Your task to perform on an android device: turn on location history Image 0: 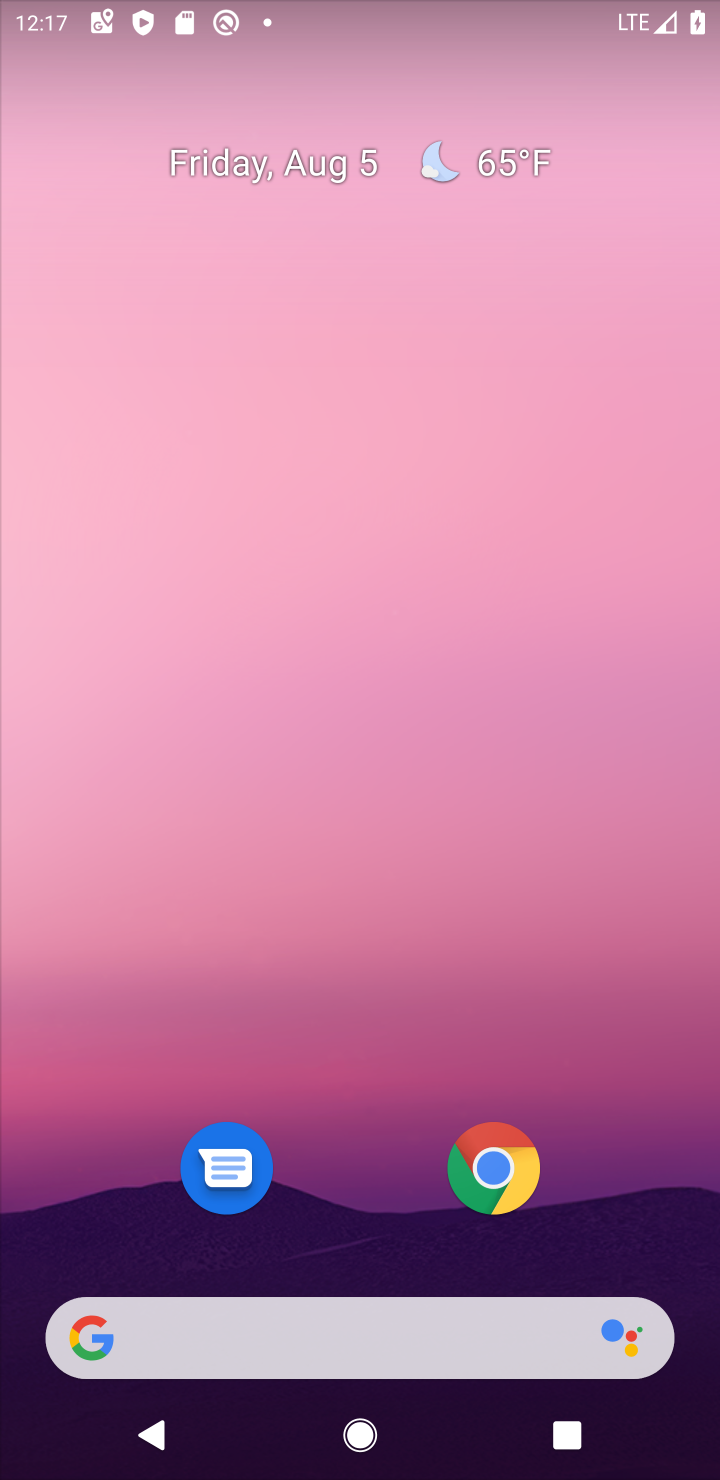
Step 0: drag from (660, 1189) to (348, 112)
Your task to perform on an android device: turn on location history Image 1: 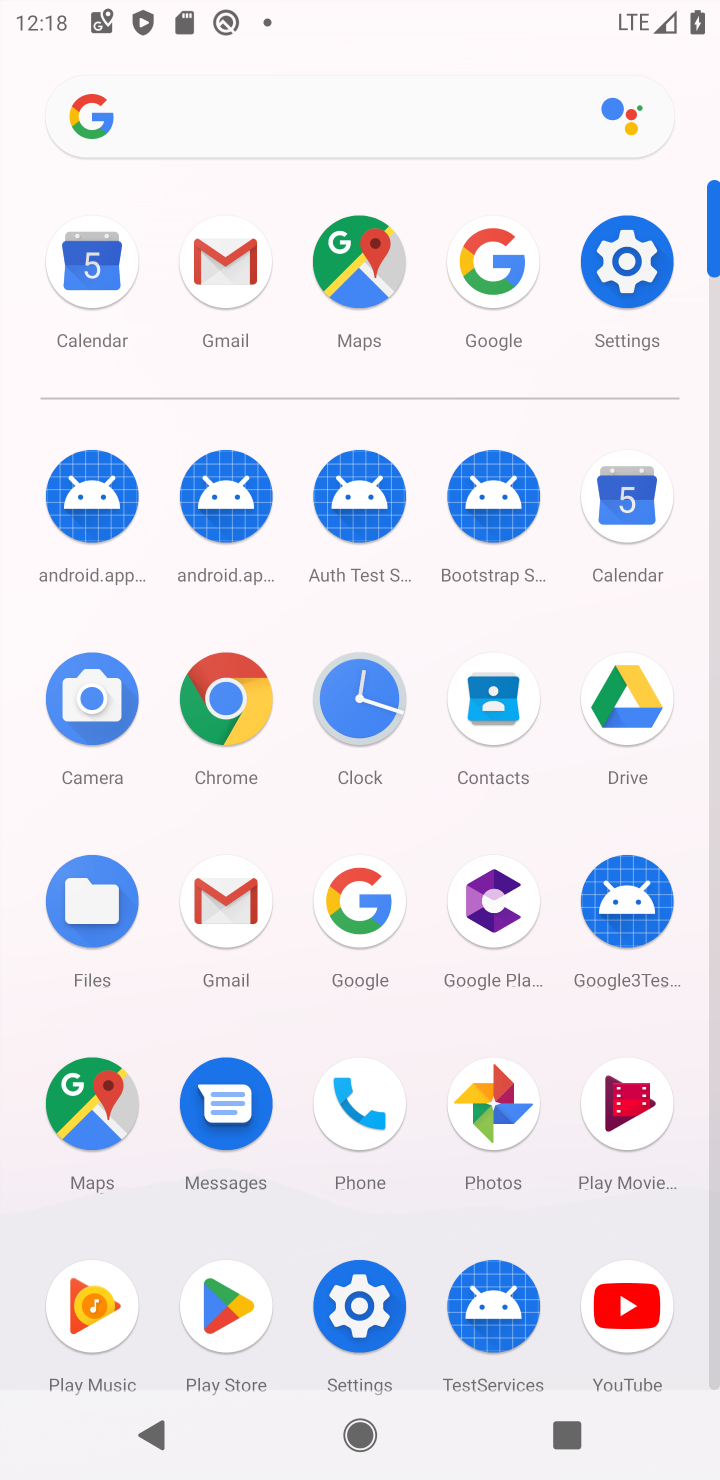
Step 1: click (363, 1304)
Your task to perform on an android device: turn on location history Image 2: 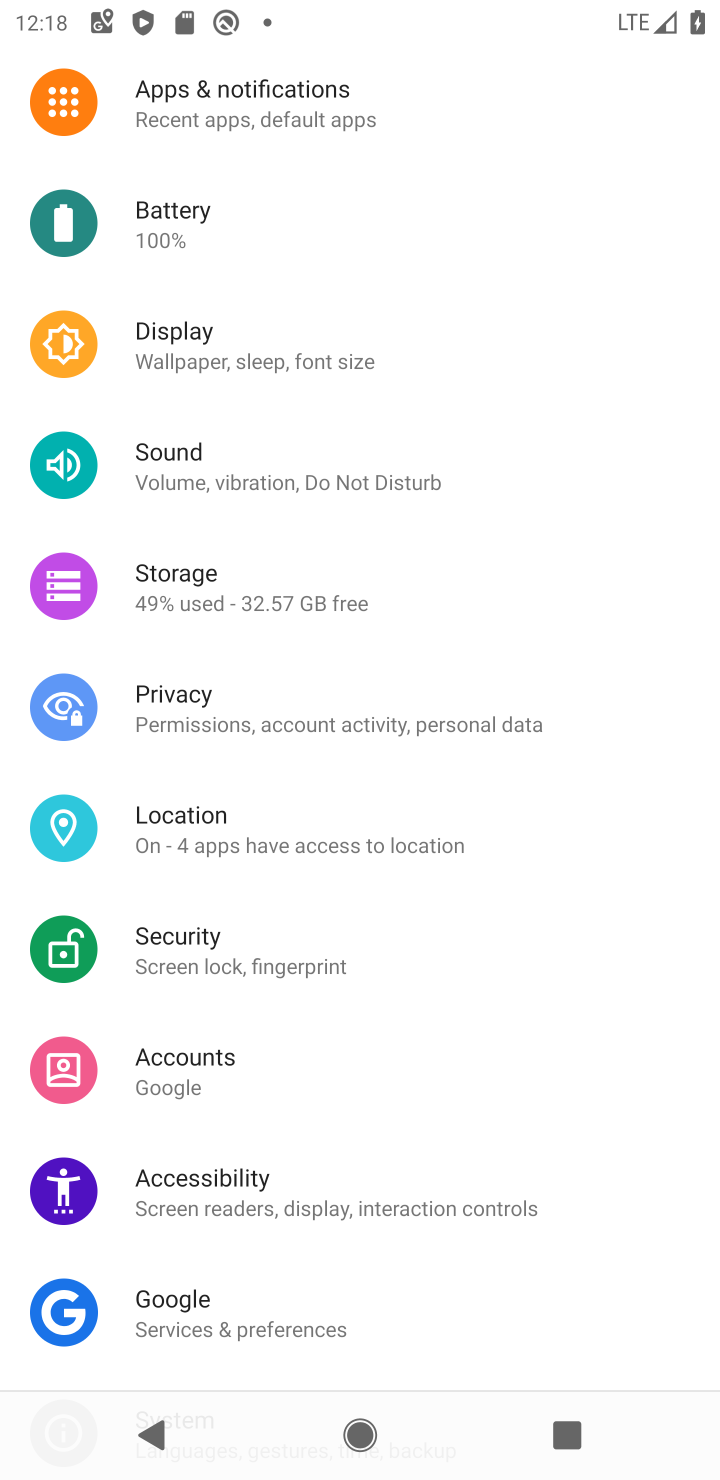
Step 2: click (152, 869)
Your task to perform on an android device: turn on location history Image 3: 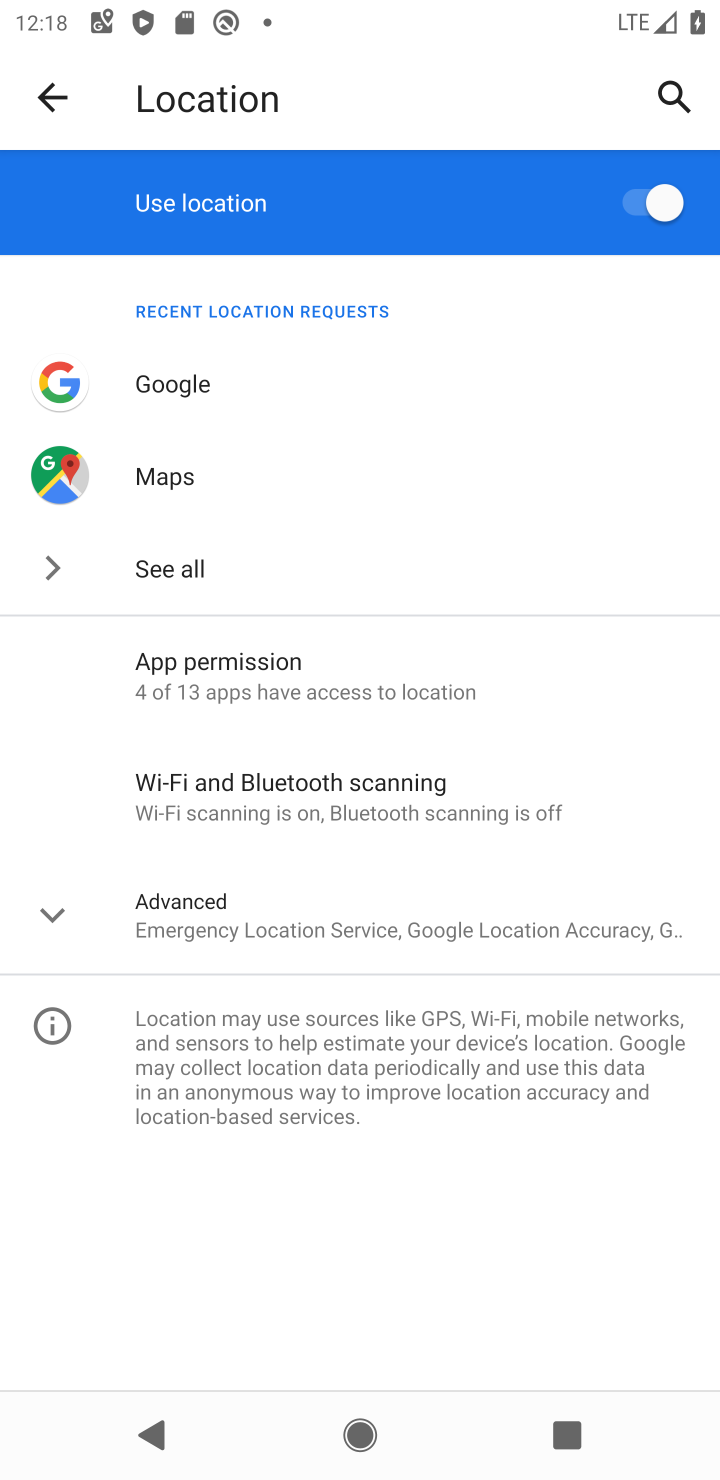
Step 3: click (182, 921)
Your task to perform on an android device: turn on location history Image 4: 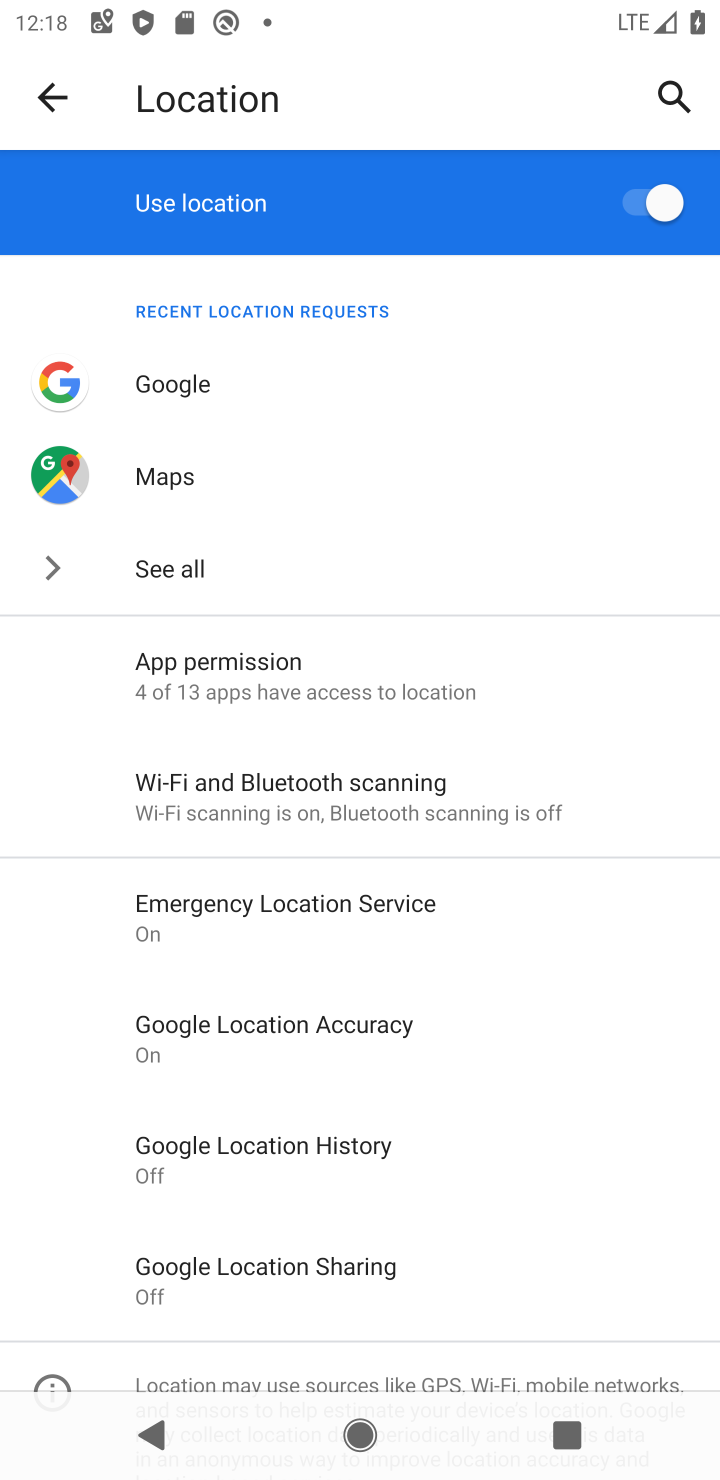
Step 4: click (297, 1148)
Your task to perform on an android device: turn on location history Image 5: 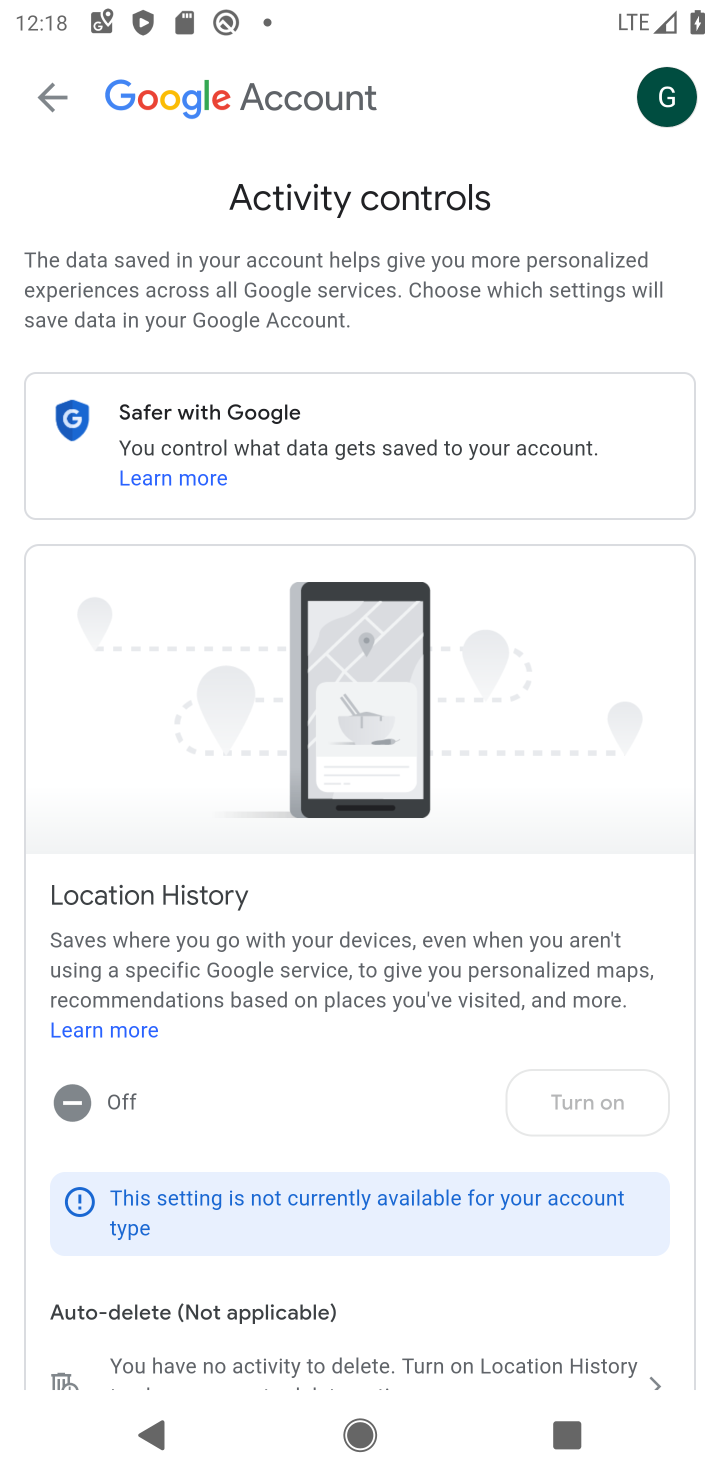
Step 5: task complete